Your task to perform on an android device: open app "Roku - Official Remote Control" Image 0: 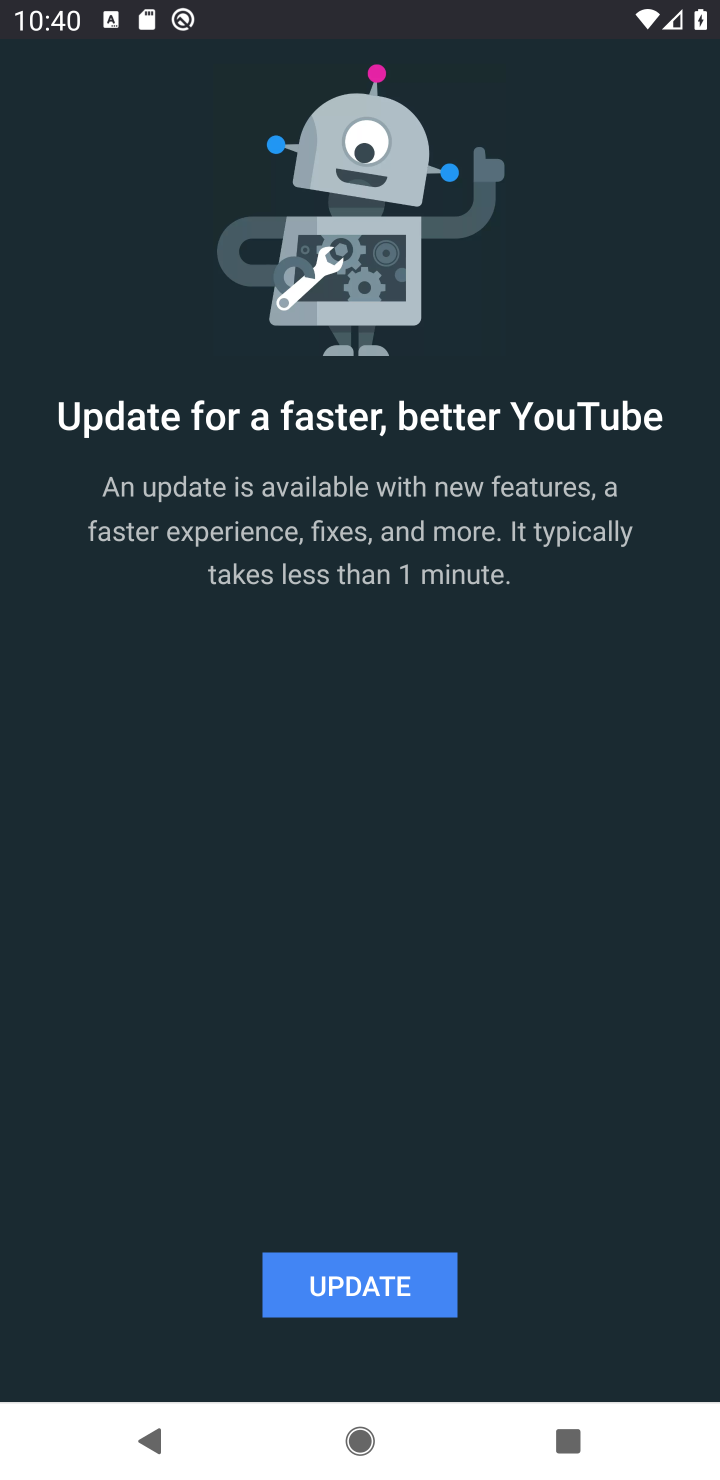
Step 0: press back button
Your task to perform on an android device: open app "Roku - Official Remote Control" Image 1: 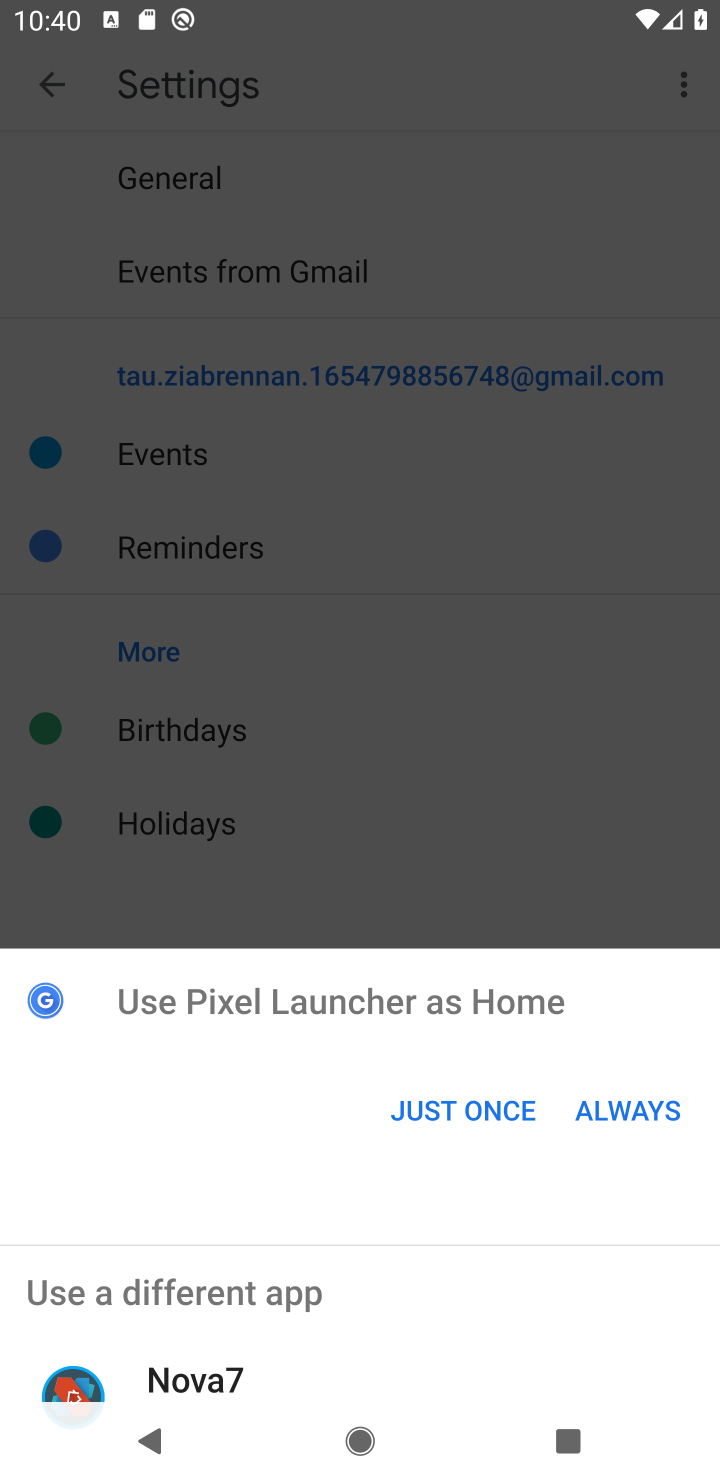
Step 1: press home button
Your task to perform on an android device: open app "Roku - Official Remote Control" Image 2: 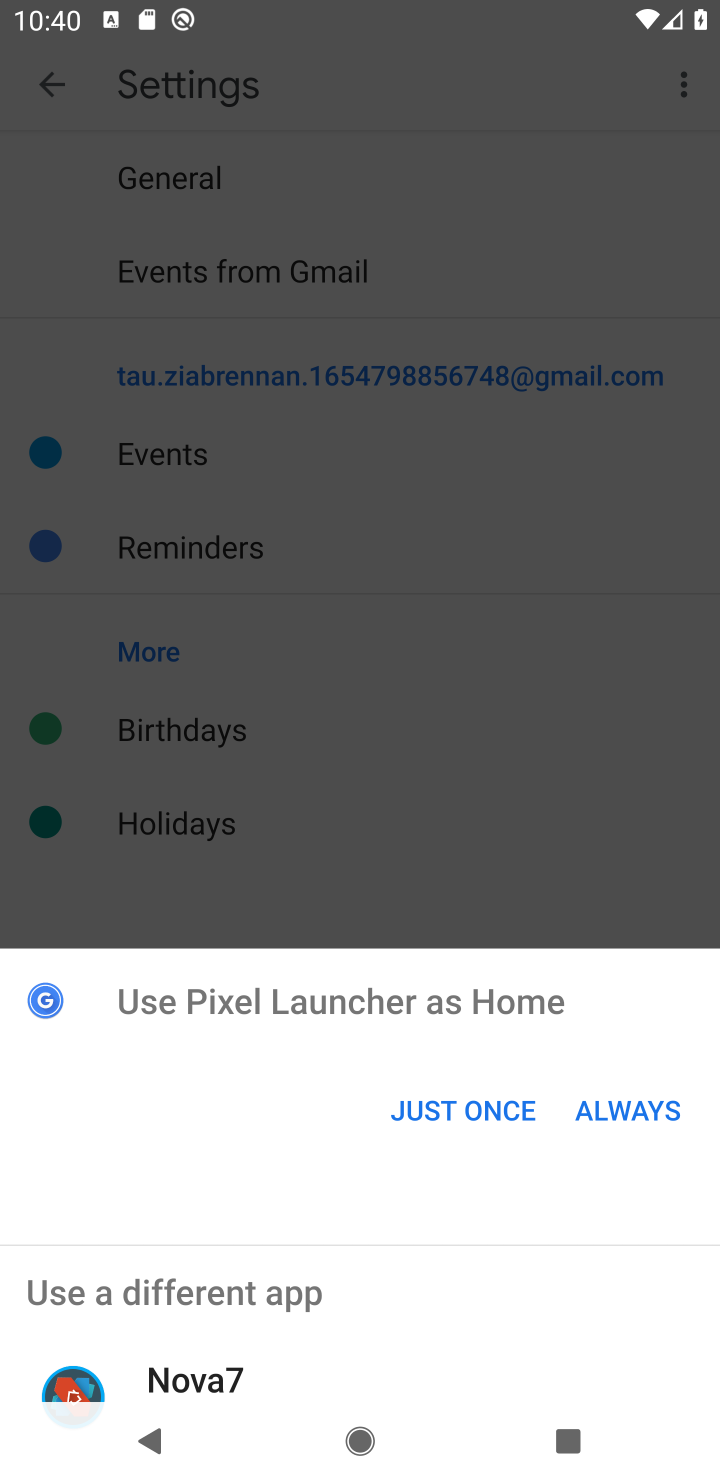
Step 2: click (642, 1100)
Your task to perform on an android device: open app "Roku - Official Remote Control" Image 3: 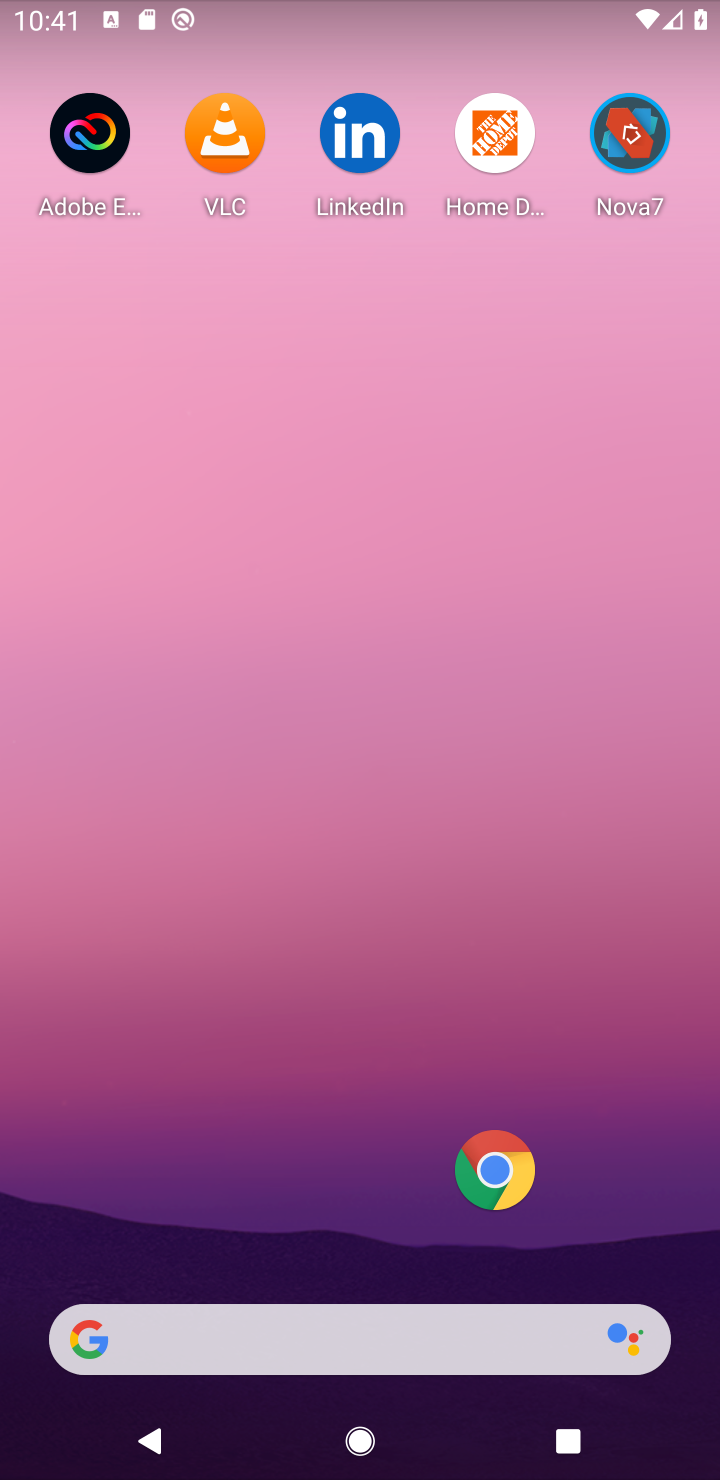
Step 3: drag from (284, 1029) to (450, 18)
Your task to perform on an android device: open app "Roku - Official Remote Control" Image 4: 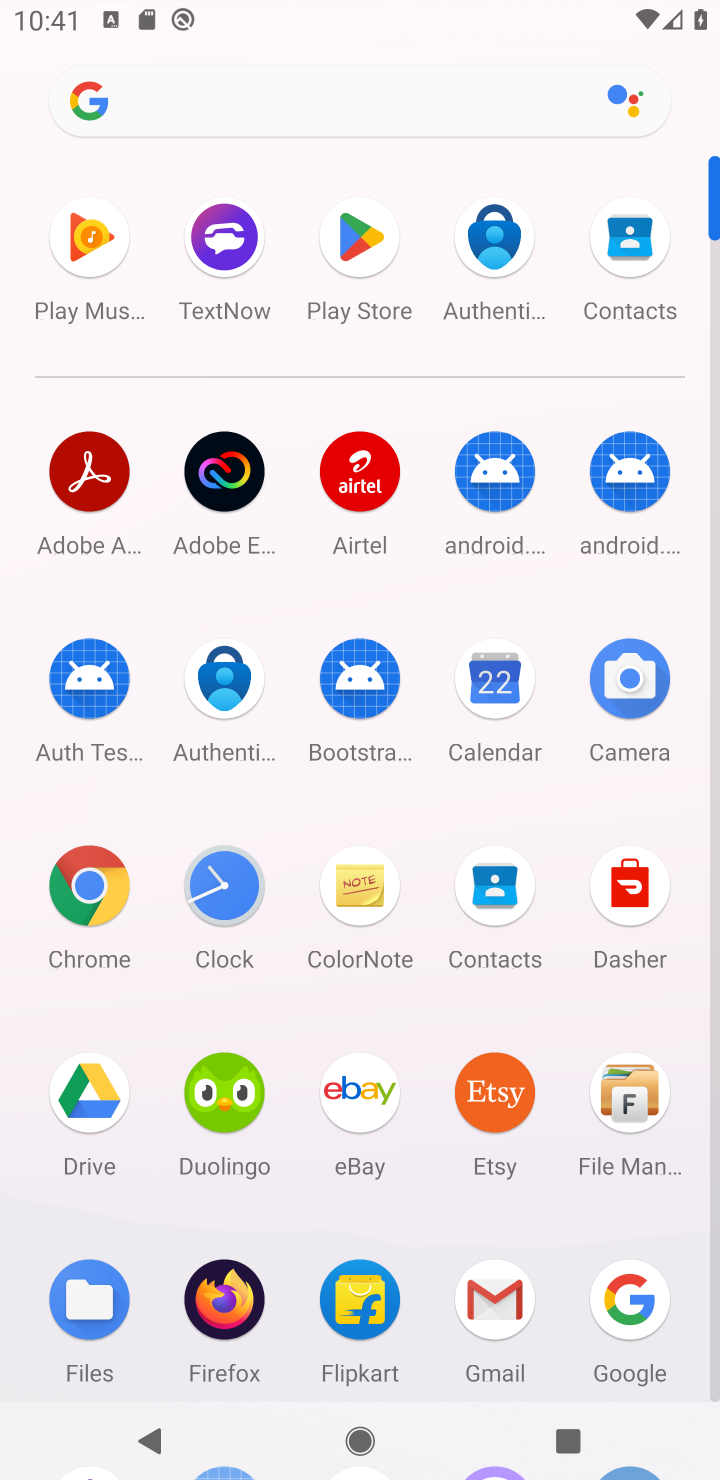
Step 4: click (383, 239)
Your task to perform on an android device: open app "Roku - Official Remote Control" Image 5: 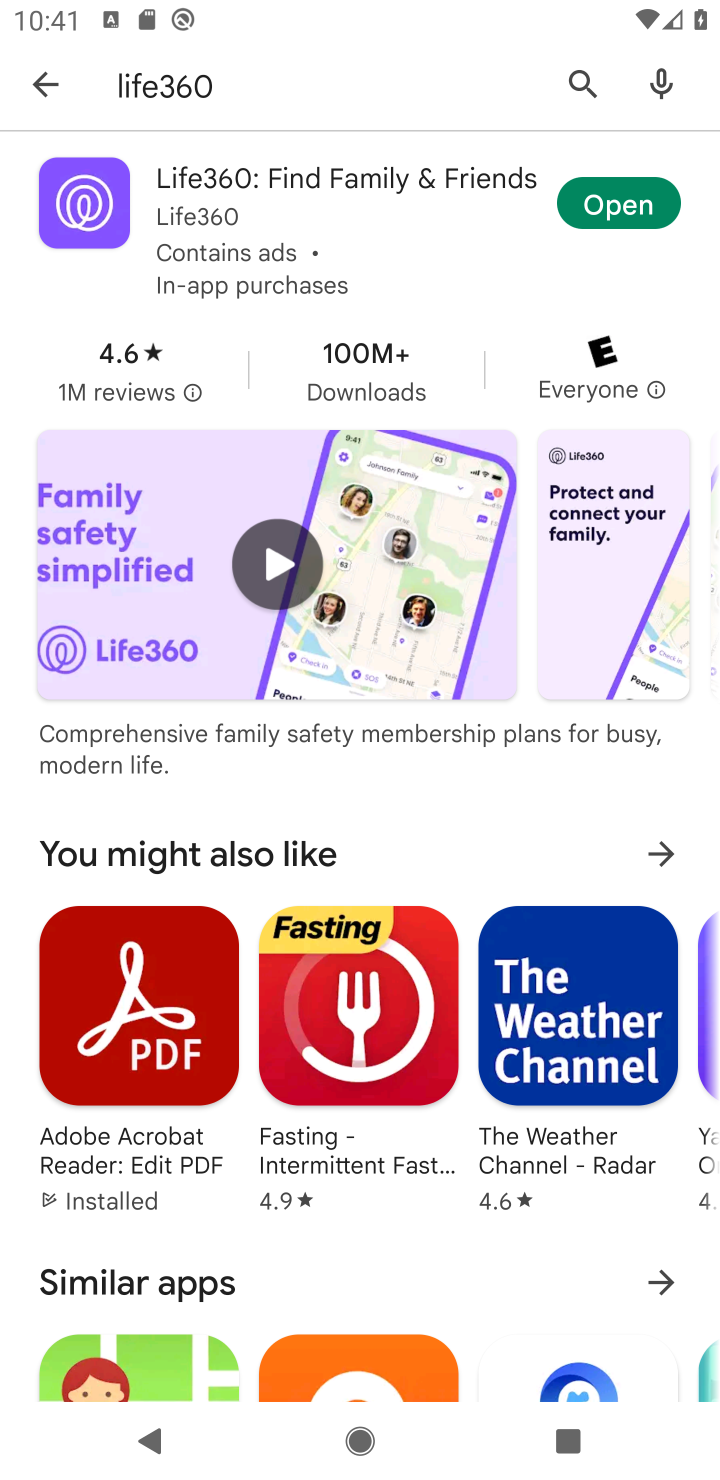
Step 5: click (565, 70)
Your task to perform on an android device: open app "Roku - Official Remote Control" Image 6: 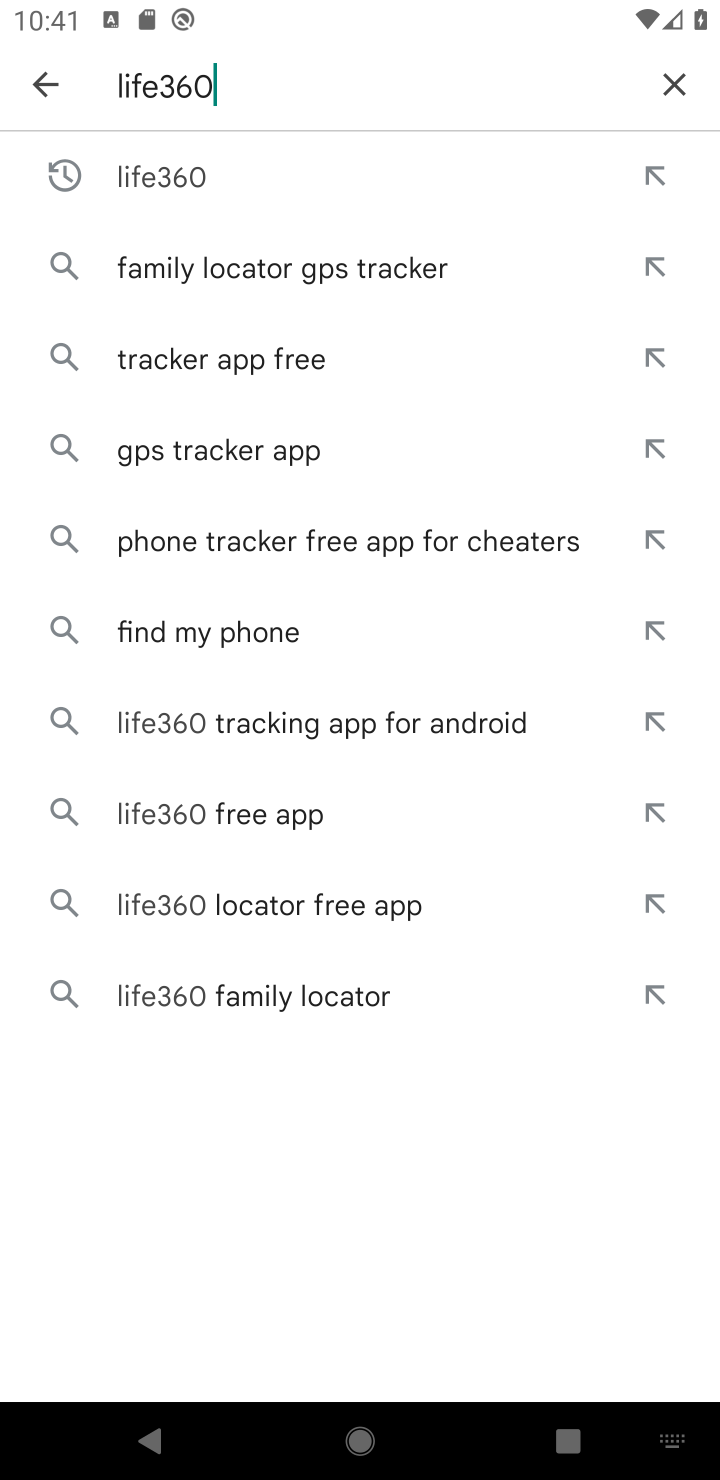
Step 6: click (688, 76)
Your task to perform on an android device: open app "Roku - Official Remote Control" Image 7: 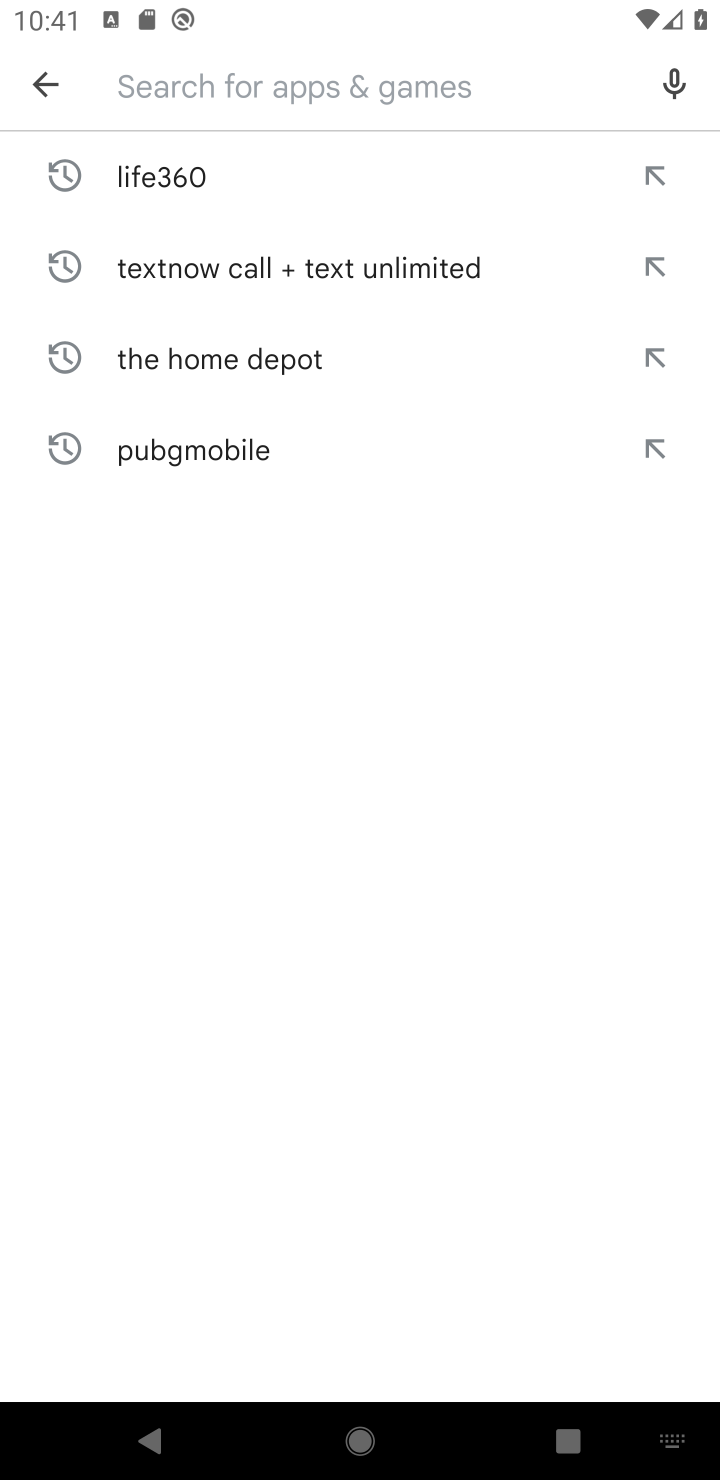
Step 7: click (295, 94)
Your task to perform on an android device: open app "Roku - Official Remote Control" Image 8: 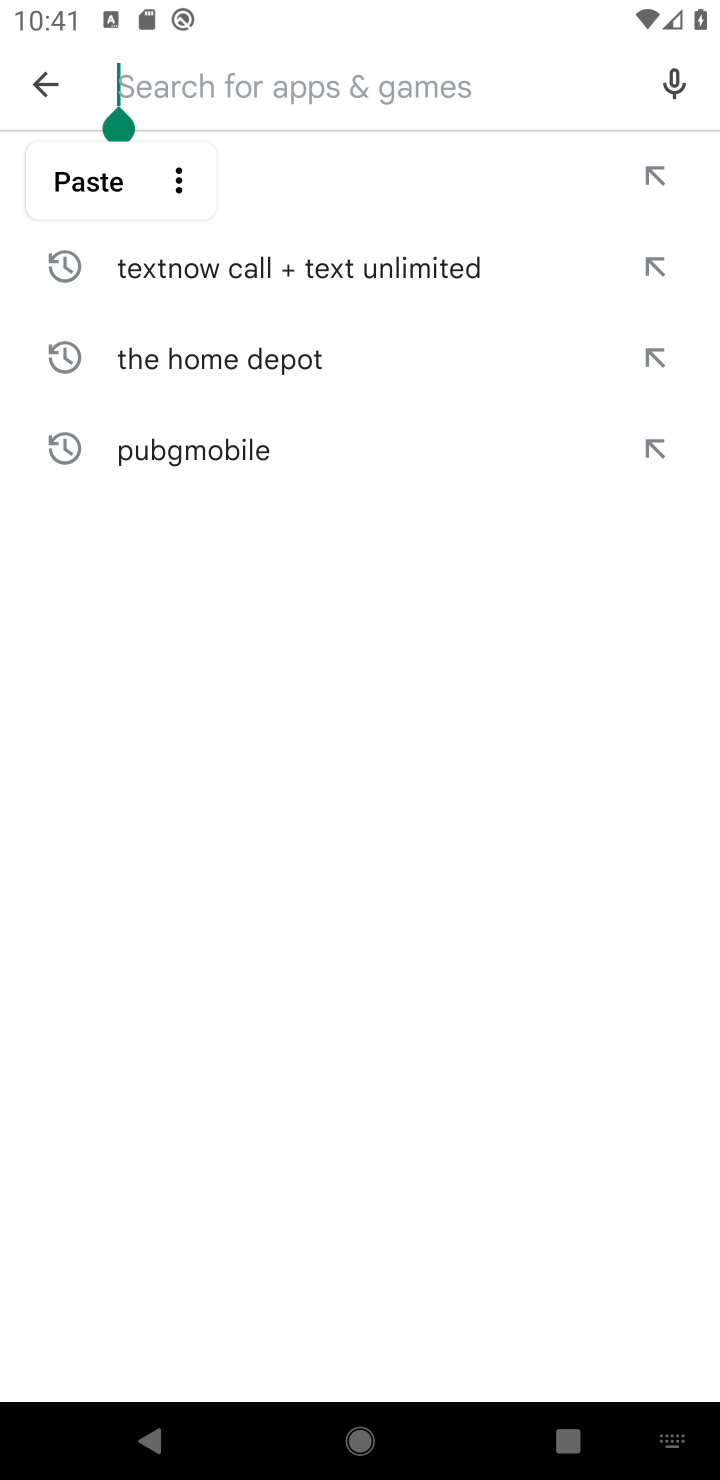
Step 8: type "roku"
Your task to perform on an android device: open app "Roku - Official Remote Control" Image 9: 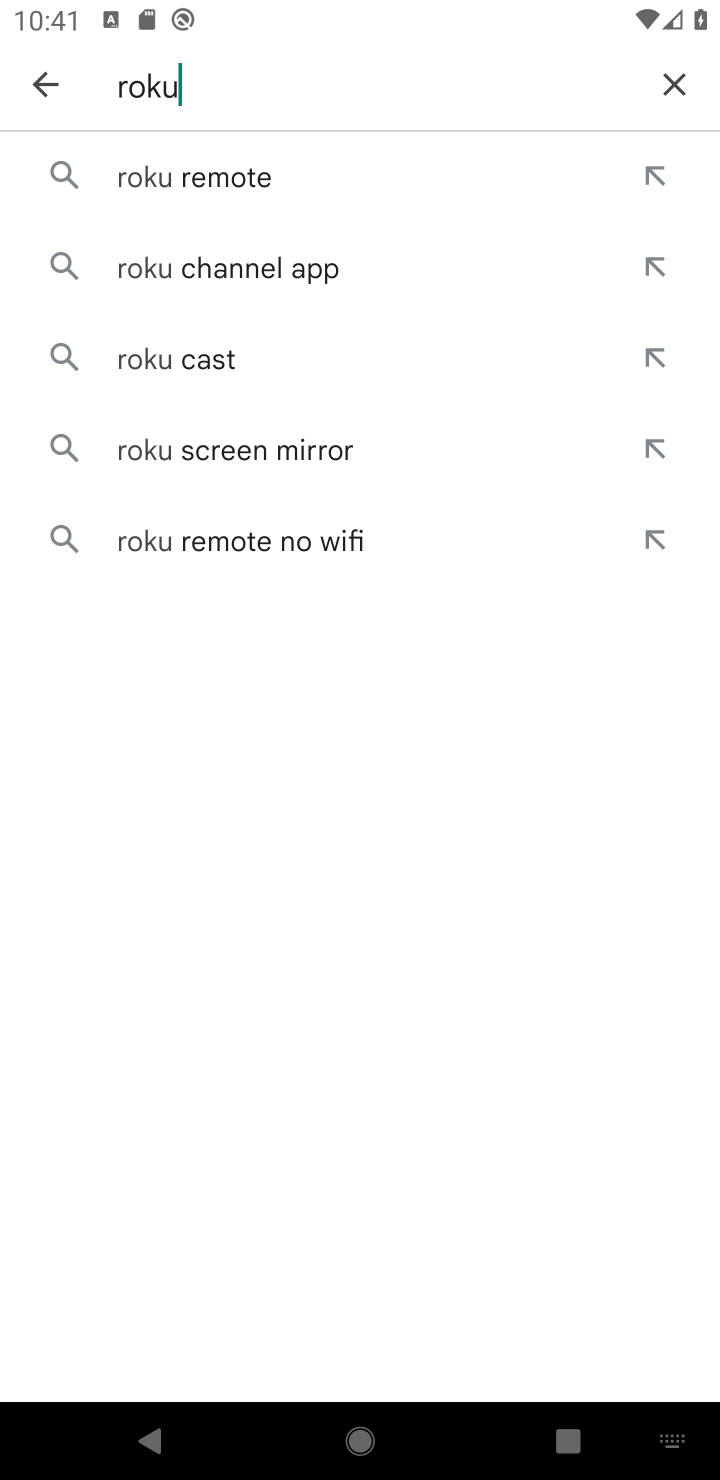
Step 9: click (225, 171)
Your task to perform on an android device: open app "Roku - Official Remote Control" Image 10: 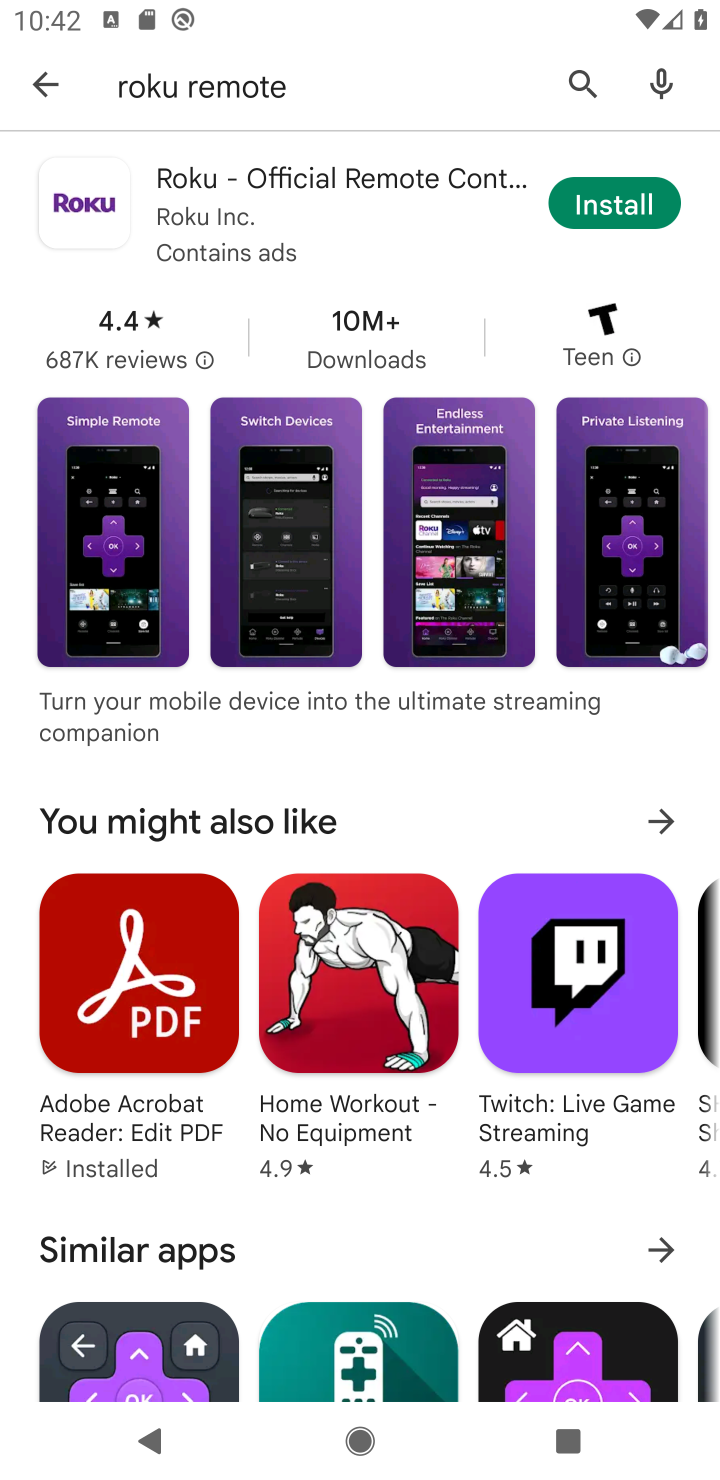
Step 10: task complete